Your task to perform on an android device: Open the Play Movies app and select the watchlist tab. Image 0: 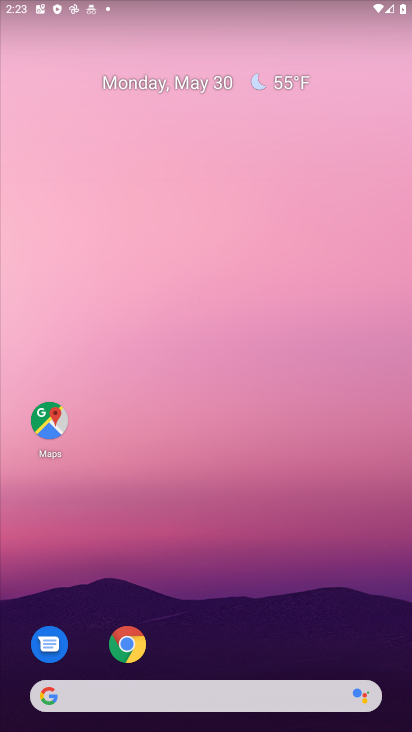
Step 0: drag from (266, 628) to (302, 293)
Your task to perform on an android device: Open the Play Movies app and select the watchlist tab. Image 1: 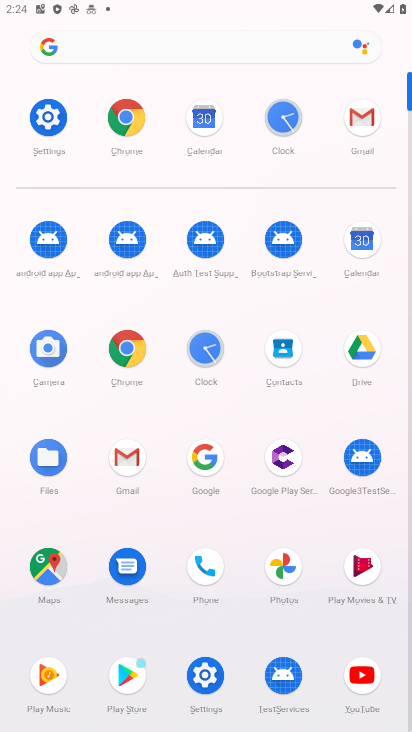
Step 1: click (353, 576)
Your task to perform on an android device: Open the Play Movies app and select the watchlist tab. Image 2: 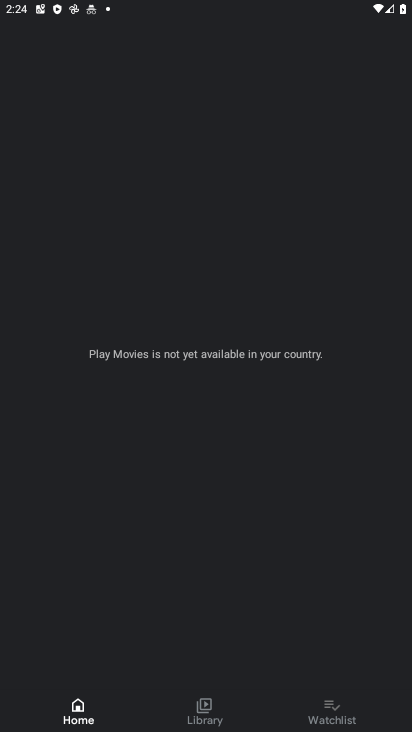
Step 2: click (353, 713)
Your task to perform on an android device: Open the Play Movies app and select the watchlist tab. Image 3: 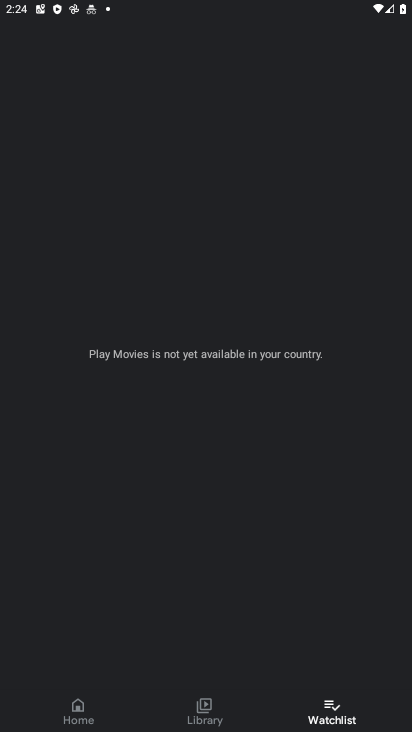
Step 3: task complete